Your task to perform on an android device: toggle priority inbox in the gmail app Image 0: 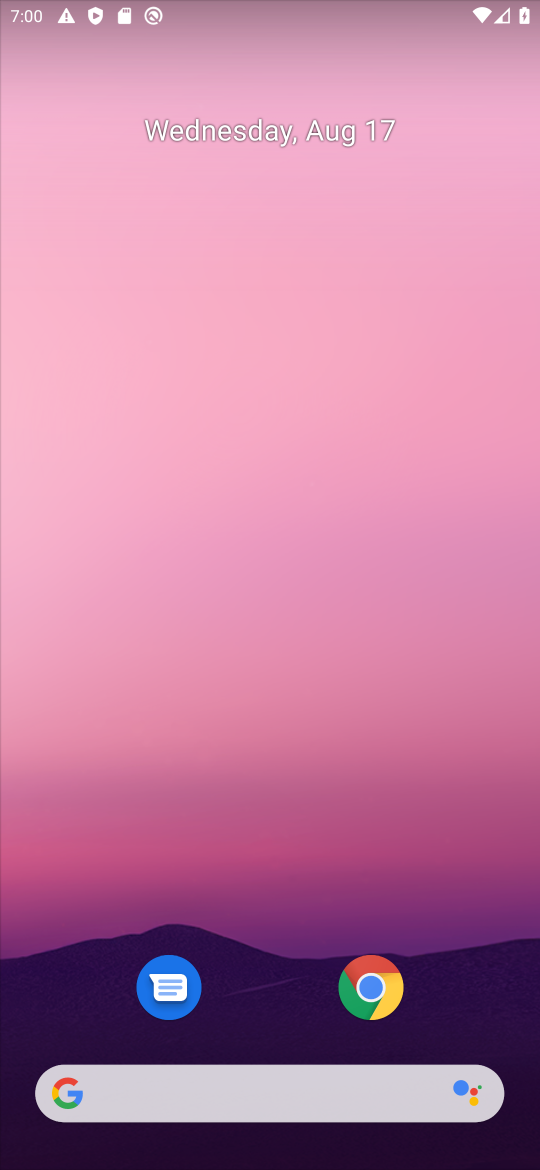
Step 0: drag from (487, 1042) to (240, 6)
Your task to perform on an android device: toggle priority inbox in the gmail app Image 1: 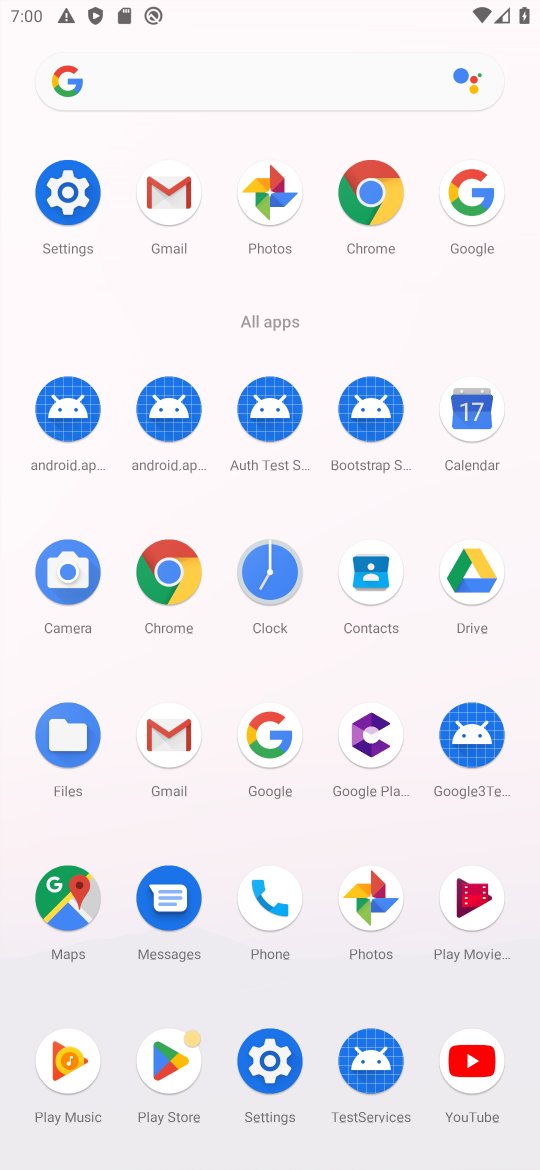
Step 1: click (149, 743)
Your task to perform on an android device: toggle priority inbox in the gmail app Image 2: 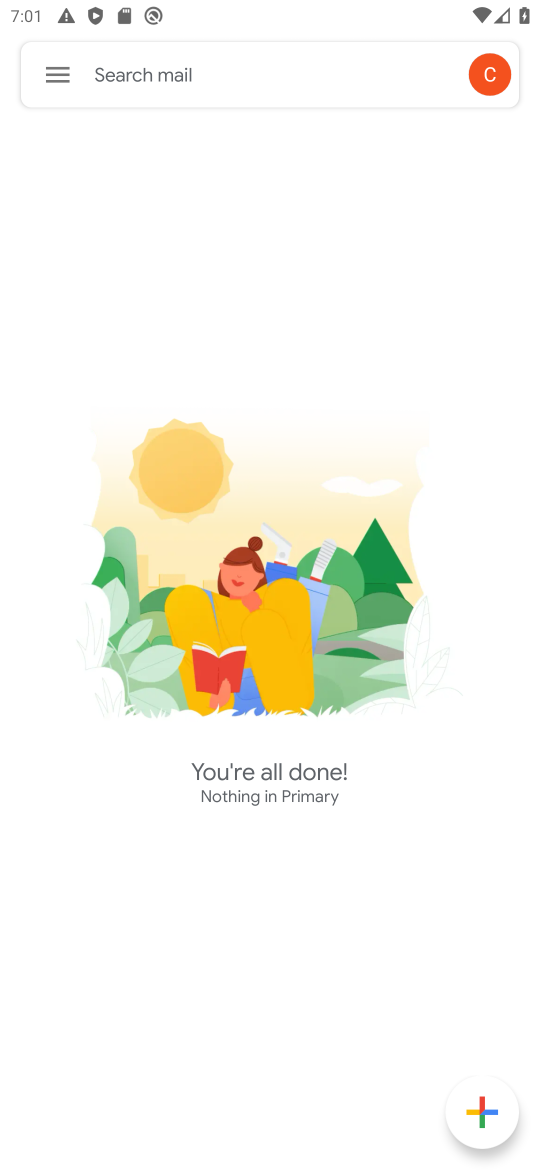
Step 2: click (45, 62)
Your task to perform on an android device: toggle priority inbox in the gmail app Image 3: 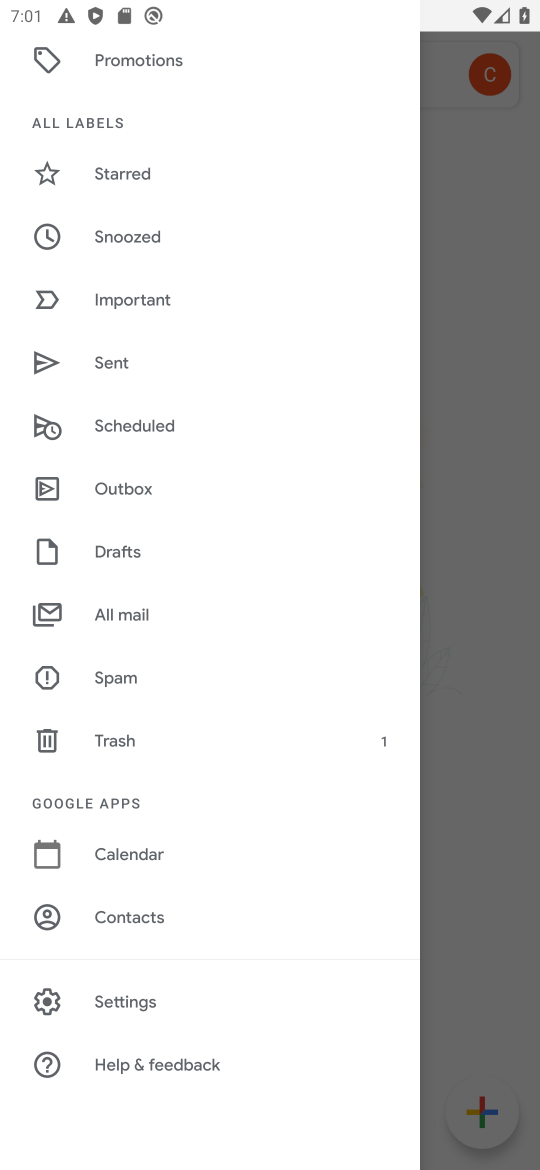
Step 3: click (101, 996)
Your task to perform on an android device: toggle priority inbox in the gmail app Image 4: 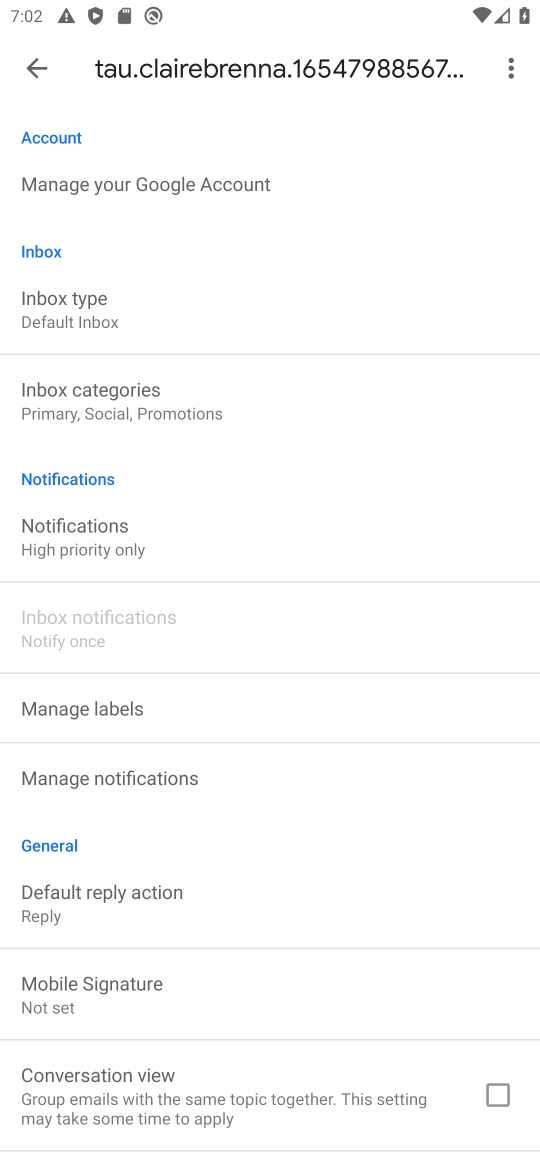
Step 4: click (102, 297)
Your task to perform on an android device: toggle priority inbox in the gmail app Image 5: 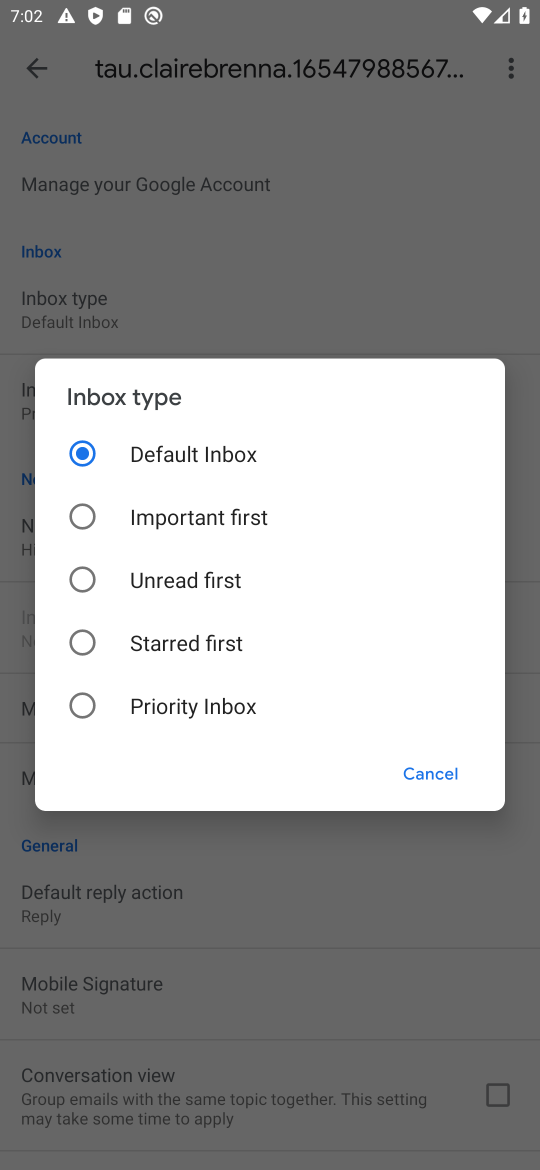
Step 5: click (128, 550)
Your task to perform on an android device: toggle priority inbox in the gmail app Image 6: 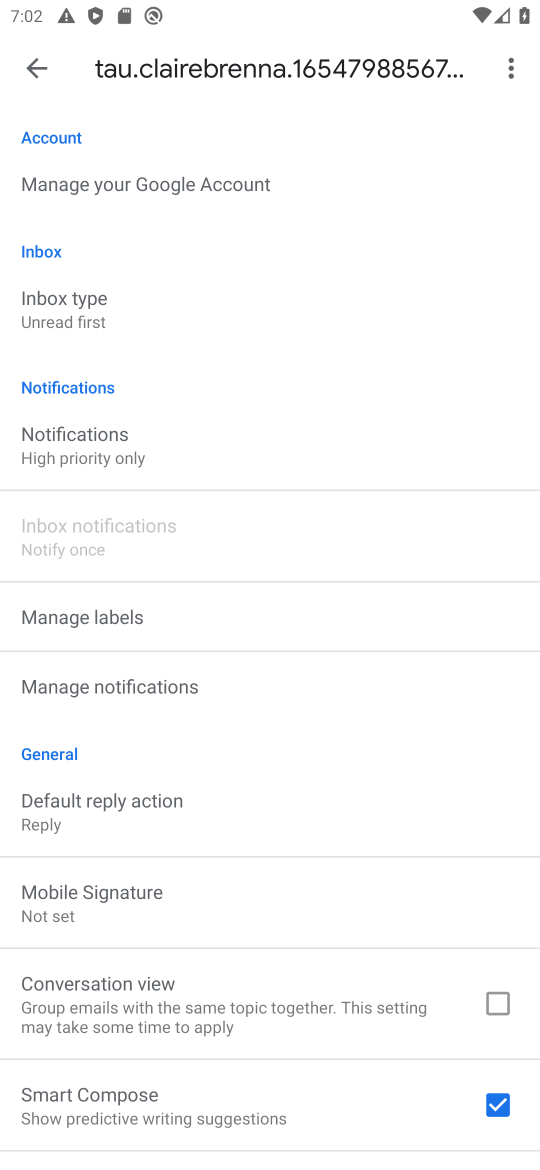
Step 6: task complete